Your task to perform on an android device: Do I have any events this weekend? Image 0: 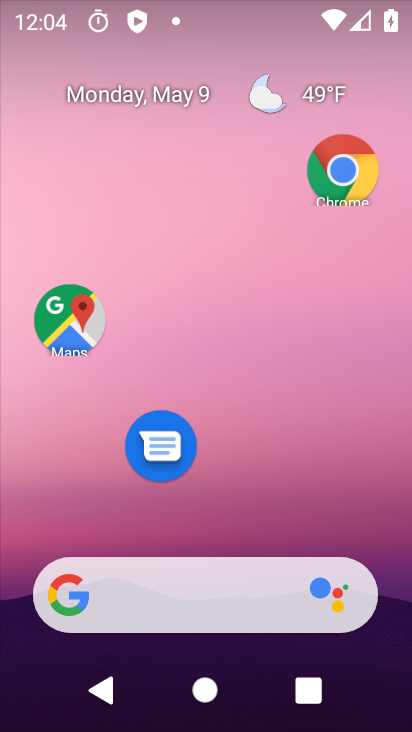
Step 0: click (401, 261)
Your task to perform on an android device: Do I have any events this weekend? Image 1: 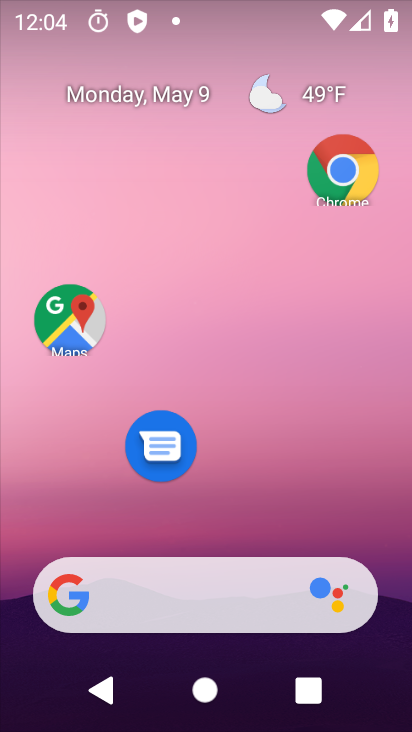
Step 1: drag from (221, 516) to (294, 106)
Your task to perform on an android device: Do I have any events this weekend? Image 2: 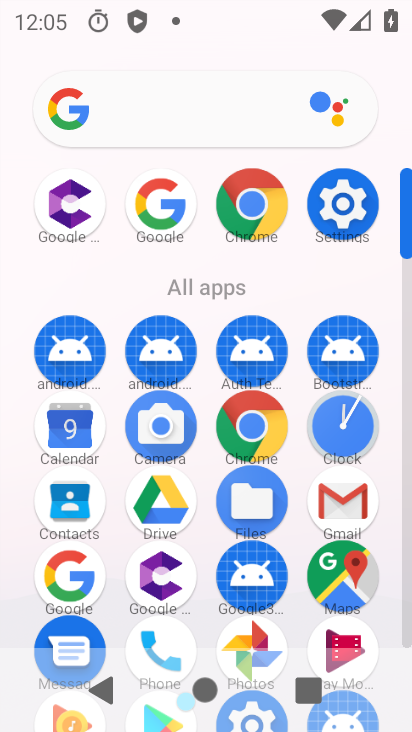
Step 2: click (71, 434)
Your task to perform on an android device: Do I have any events this weekend? Image 3: 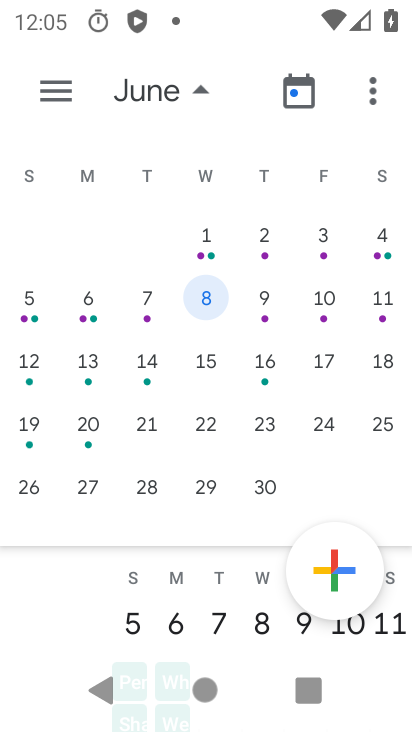
Step 3: click (62, 96)
Your task to perform on an android device: Do I have any events this weekend? Image 4: 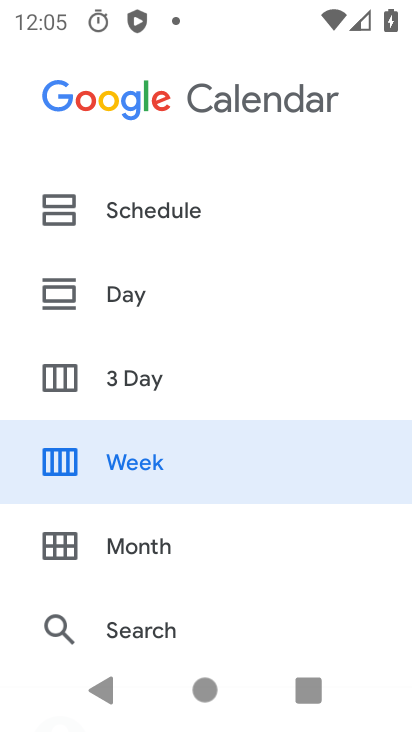
Step 4: drag from (78, 571) to (76, 406)
Your task to perform on an android device: Do I have any events this weekend? Image 5: 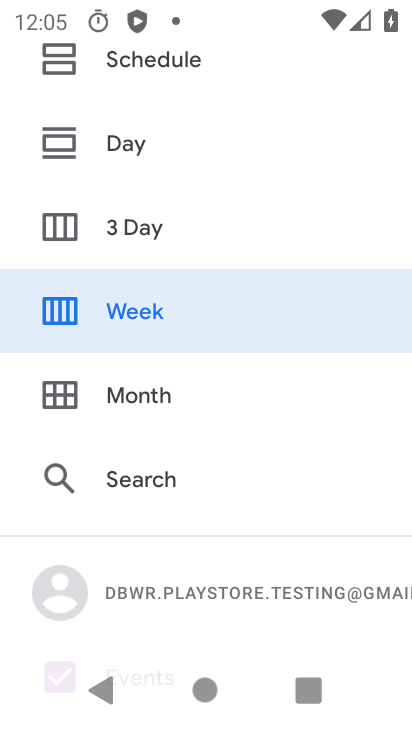
Step 5: drag from (41, 543) to (99, 371)
Your task to perform on an android device: Do I have any events this weekend? Image 6: 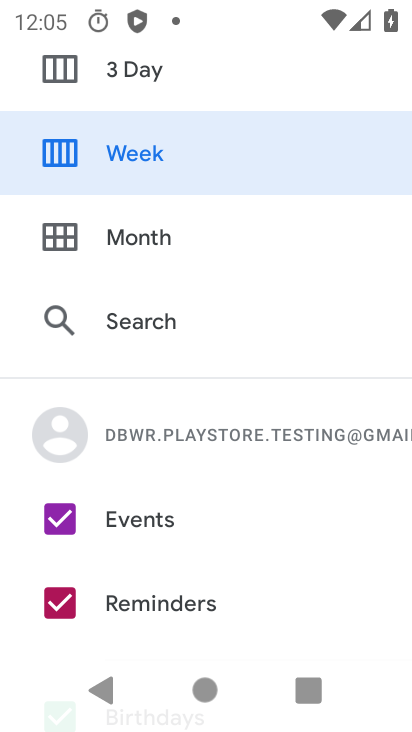
Step 6: click (196, 516)
Your task to perform on an android device: Do I have any events this weekend? Image 7: 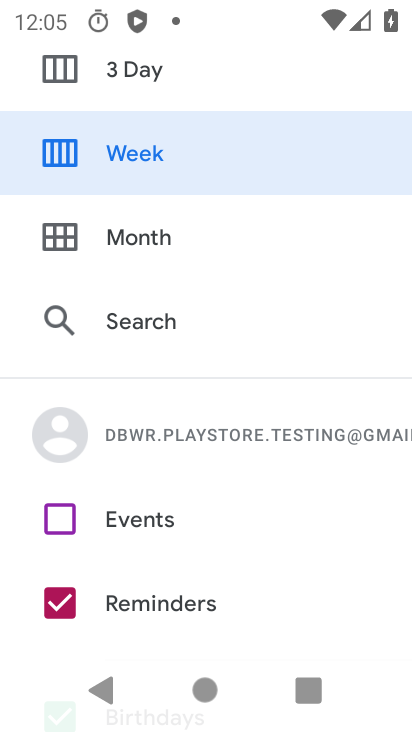
Step 7: click (196, 516)
Your task to perform on an android device: Do I have any events this weekend? Image 8: 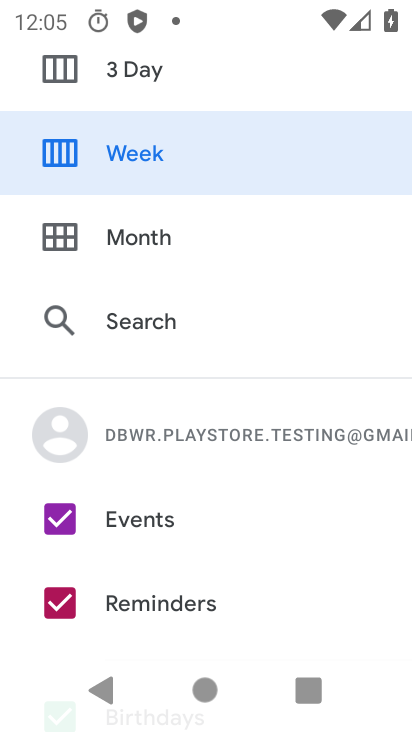
Step 8: task complete